Your task to perform on an android device: Open eBay Image 0: 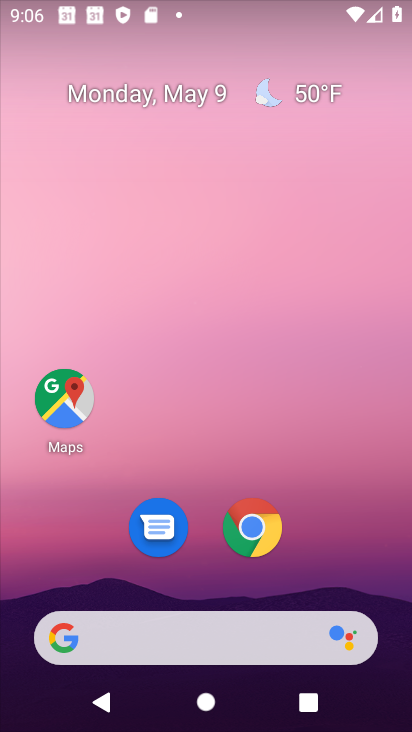
Step 0: click (261, 533)
Your task to perform on an android device: Open eBay Image 1: 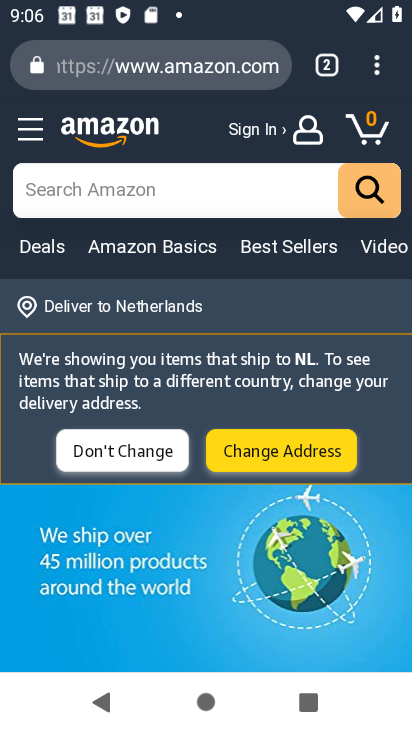
Step 1: click (207, 67)
Your task to perform on an android device: Open eBay Image 2: 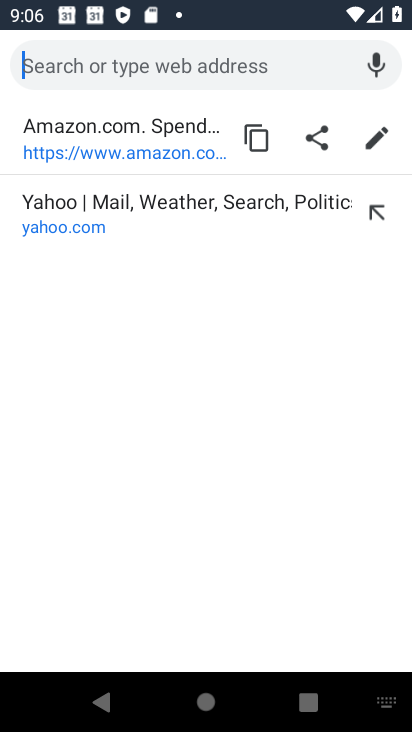
Step 2: type "eBay"
Your task to perform on an android device: Open eBay Image 3: 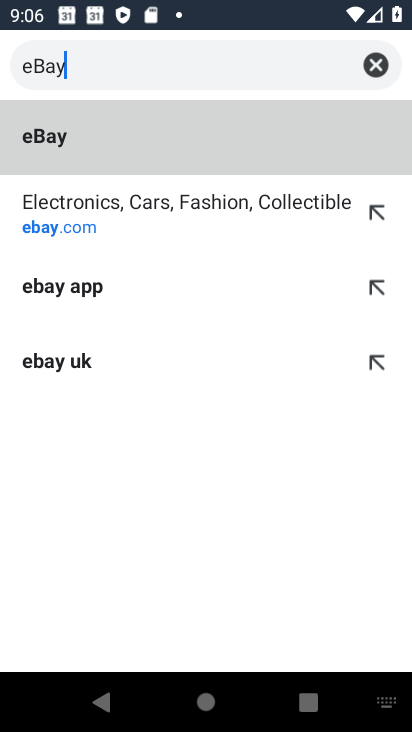
Step 3: click (117, 156)
Your task to perform on an android device: Open eBay Image 4: 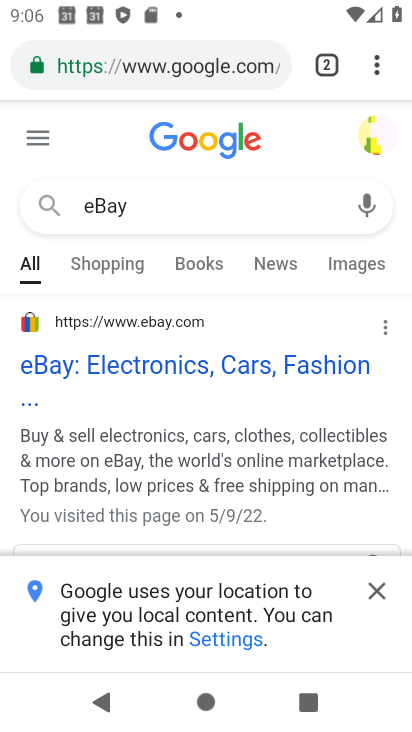
Step 4: task complete